Your task to perform on an android device: refresh tabs in the chrome app Image 0: 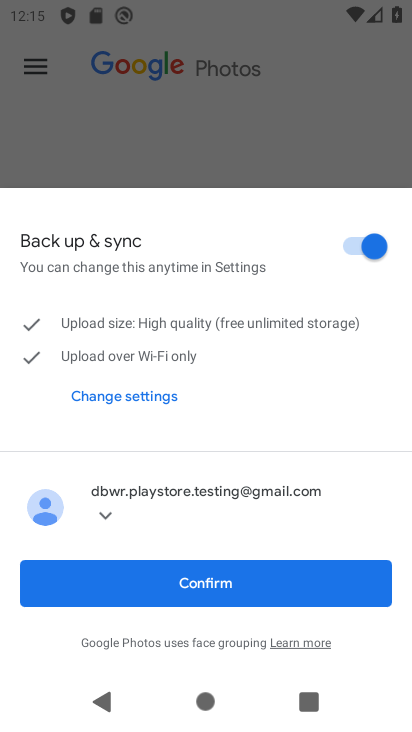
Step 0: press home button
Your task to perform on an android device: refresh tabs in the chrome app Image 1: 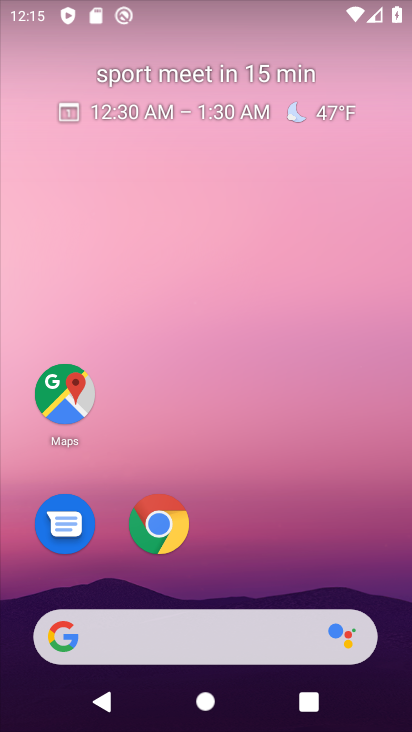
Step 1: click (163, 522)
Your task to perform on an android device: refresh tabs in the chrome app Image 2: 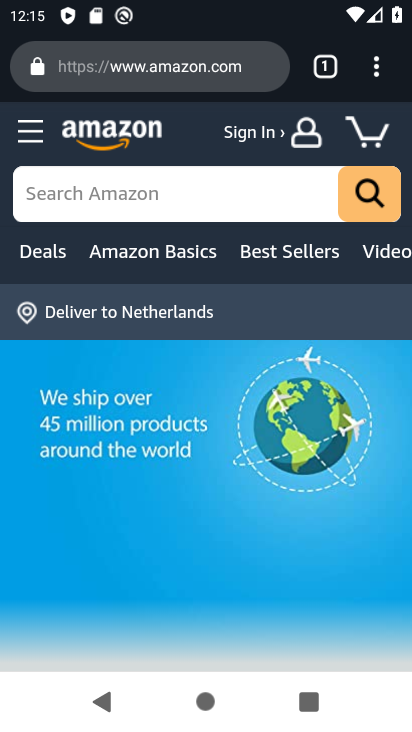
Step 2: click (375, 68)
Your task to perform on an android device: refresh tabs in the chrome app Image 3: 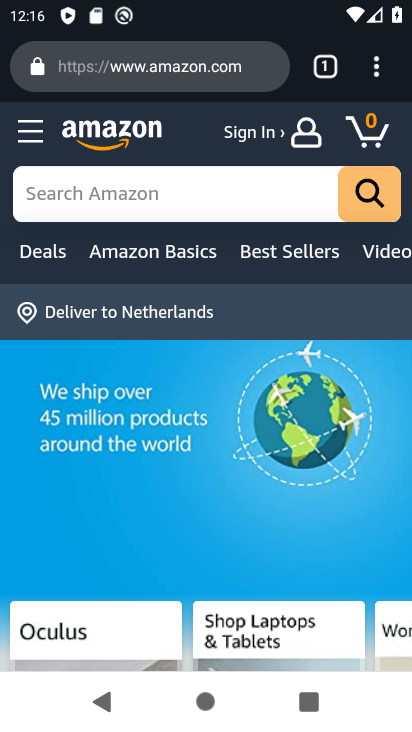
Step 3: click (375, 68)
Your task to perform on an android device: refresh tabs in the chrome app Image 4: 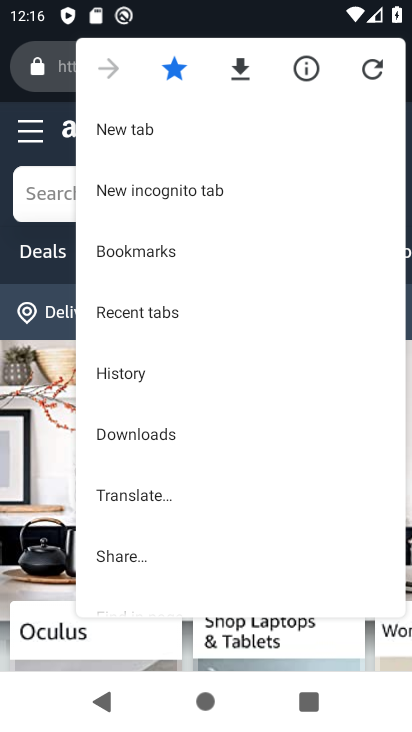
Step 4: click (375, 68)
Your task to perform on an android device: refresh tabs in the chrome app Image 5: 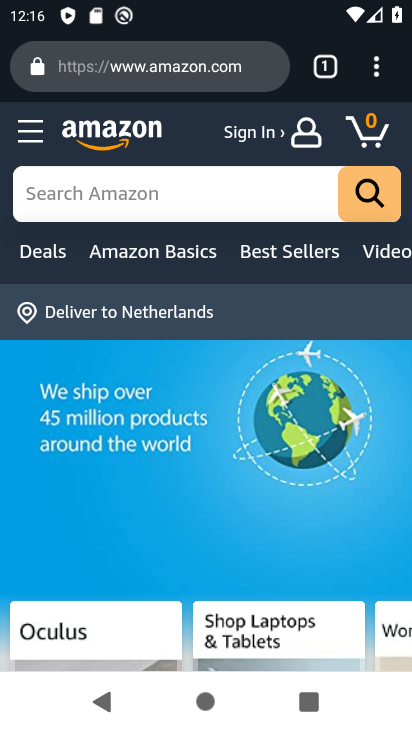
Step 5: task complete